Your task to perform on an android device: toggle location history Image 0: 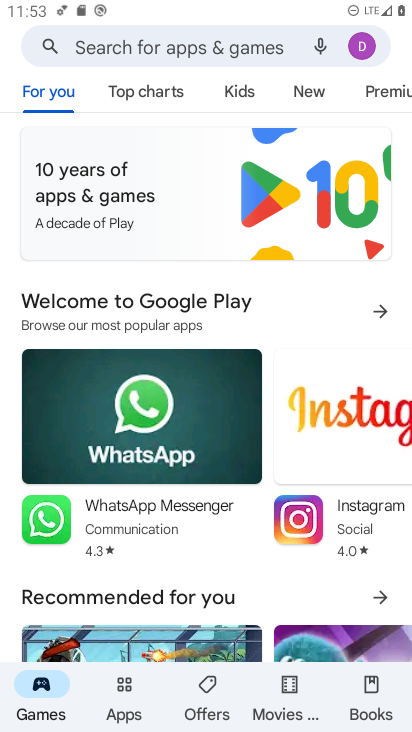
Step 0: press home button
Your task to perform on an android device: toggle location history Image 1: 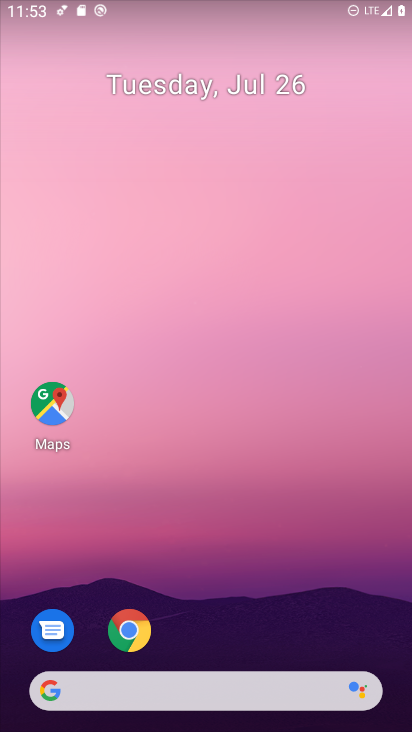
Step 1: click (53, 405)
Your task to perform on an android device: toggle location history Image 2: 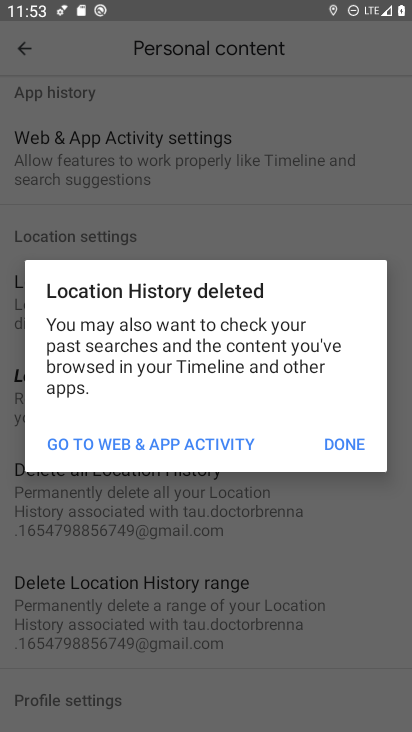
Step 2: click (335, 444)
Your task to perform on an android device: toggle location history Image 3: 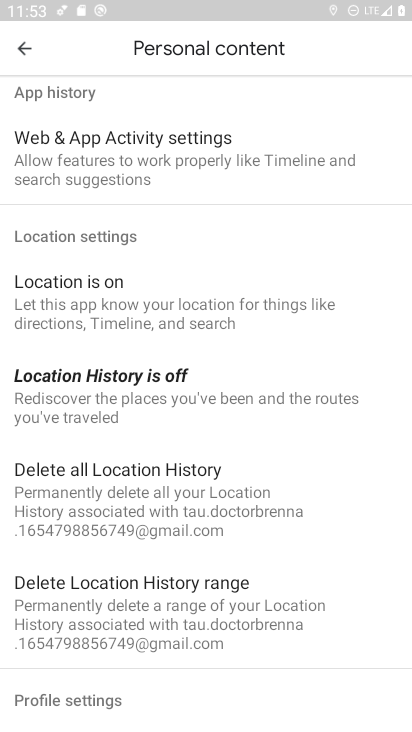
Step 3: press back button
Your task to perform on an android device: toggle location history Image 4: 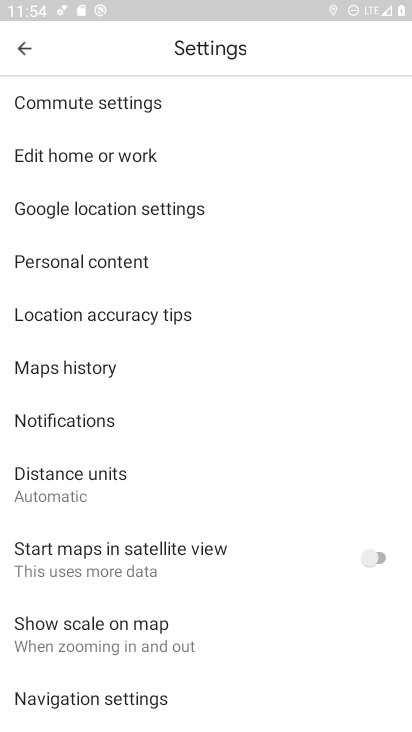
Step 4: click (65, 264)
Your task to perform on an android device: toggle location history Image 5: 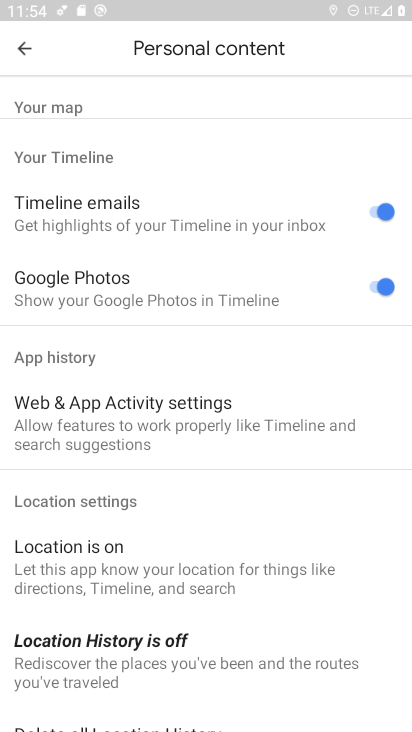
Step 5: drag from (230, 598) to (264, 223)
Your task to perform on an android device: toggle location history Image 6: 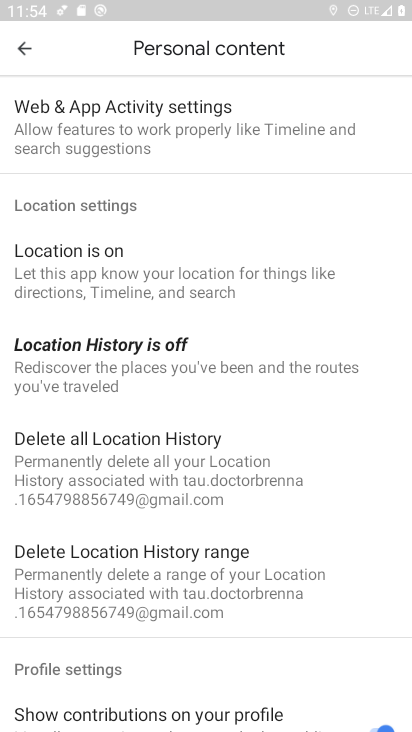
Step 6: click (82, 352)
Your task to perform on an android device: toggle location history Image 7: 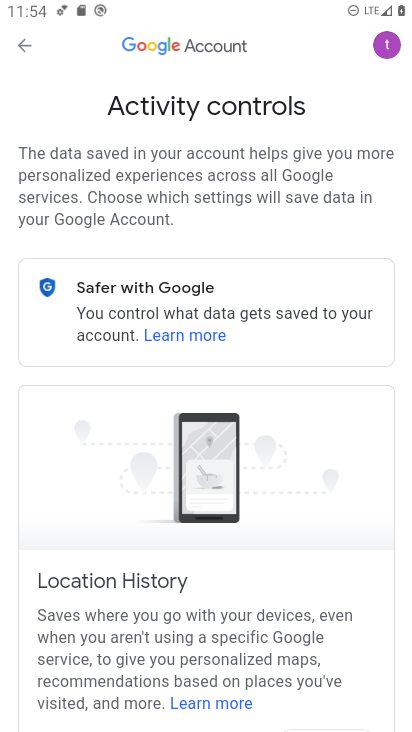
Step 7: task complete